Your task to perform on an android device: see tabs open on other devices in the chrome app Image 0: 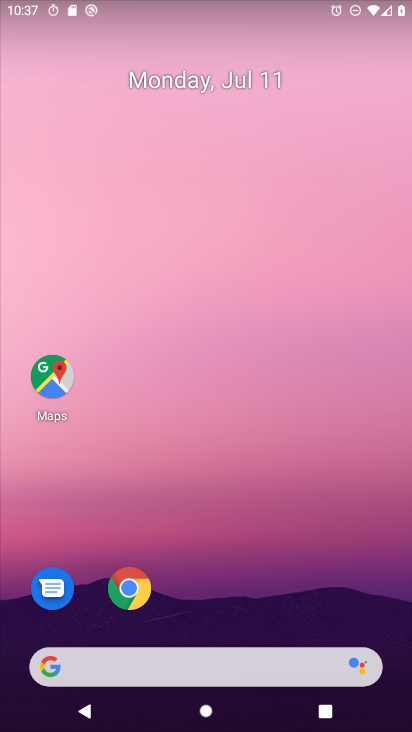
Step 0: click (131, 584)
Your task to perform on an android device: see tabs open on other devices in the chrome app Image 1: 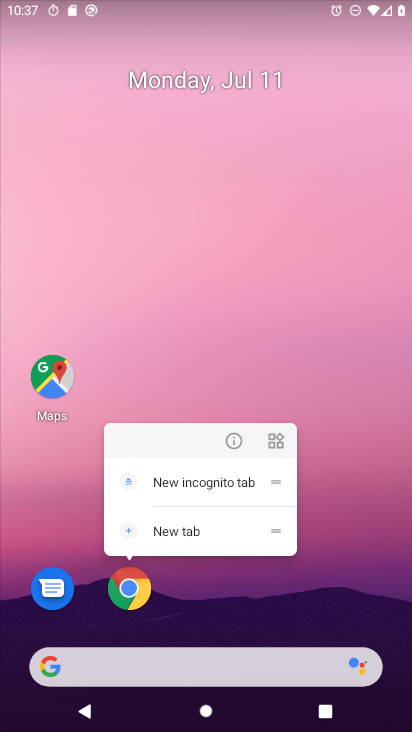
Step 1: click (131, 584)
Your task to perform on an android device: see tabs open on other devices in the chrome app Image 2: 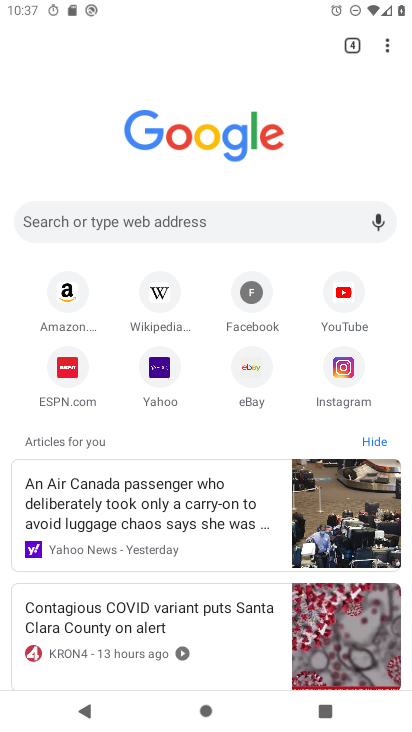
Step 2: task complete